Your task to perform on an android device: Open settings Image 0: 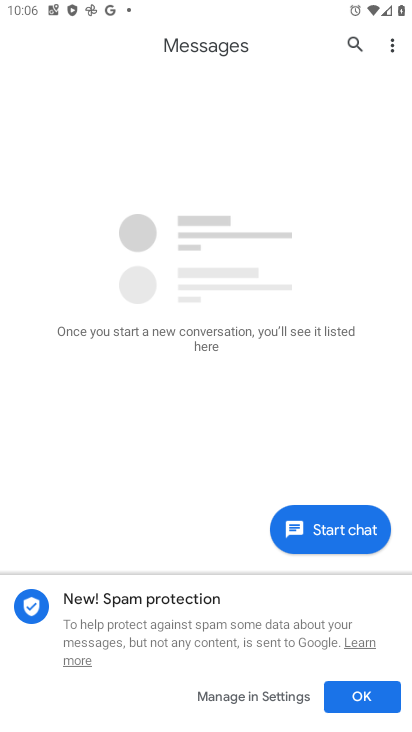
Step 0: press home button
Your task to perform on an android device: Open settings Image 1: 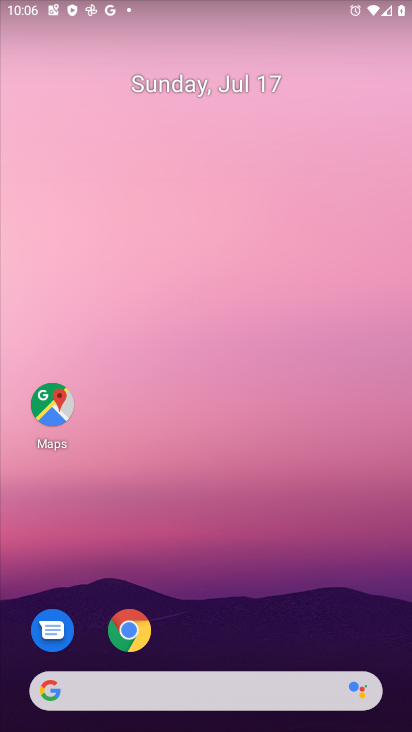
Step 1: drag from (174, 236) to (174, 17)
Your task to perform on an android device: Open settings Image 2: 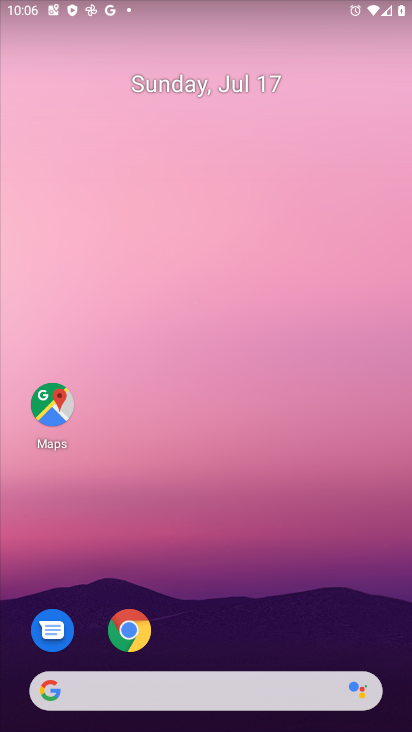
Step 2: drag from (195, 635) to (213, 197)
Your task to perform on an android device: Open settings Image 3: 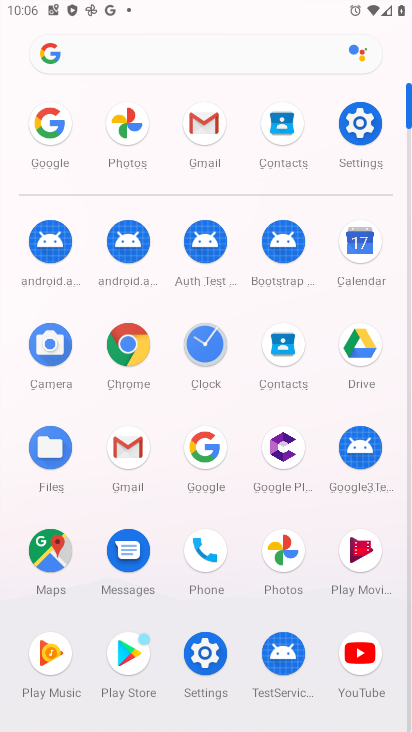
Step 3: click (356, 131)
Your task to perform on an android device: Open settings Image 4: 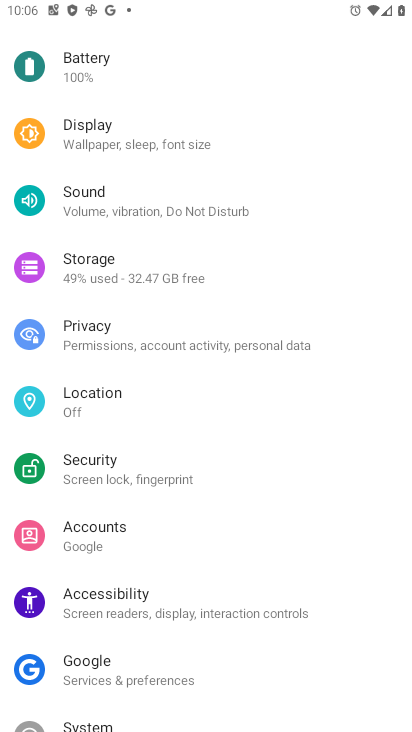
Step 4: task complete